Your task to perform on an android device: Open Google Chrome and open the bookmarks view Image 0: 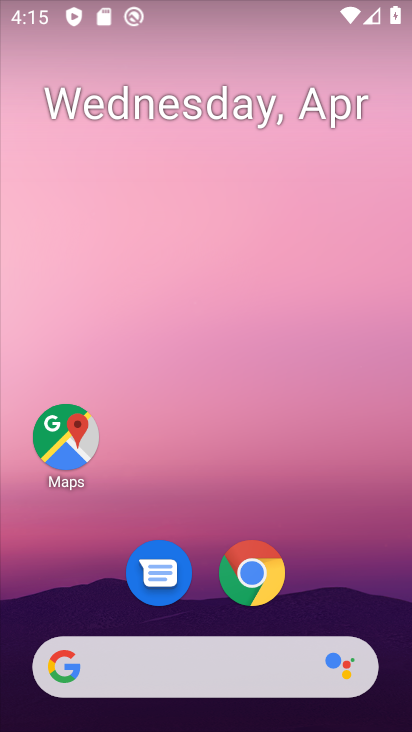
Step 0: click (320, 410)
Your task to perform on an android device: Open Google Chrome and open the bookmarks view Image 1: 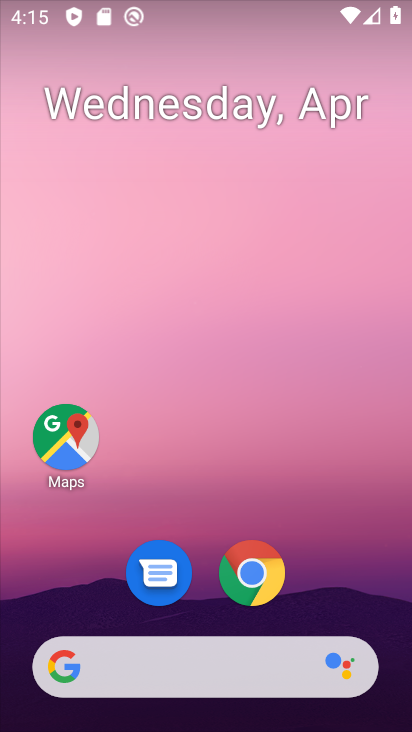
Step 1: click (249, 585)
Your task to perform on an android device: Open Google Chrome and open the bookmarks view Image 2: 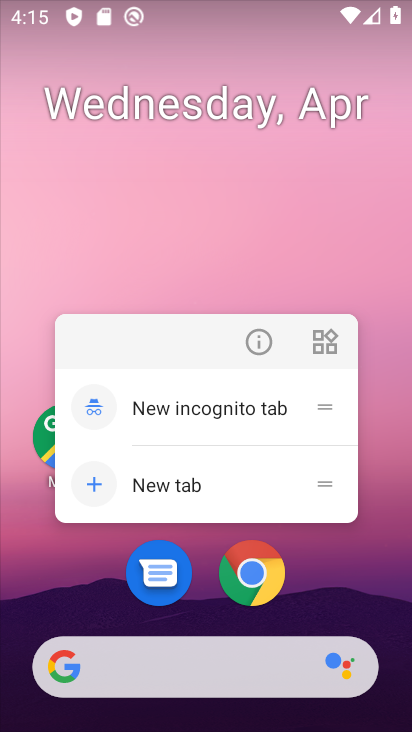
Step 2: click (248, 582)
Your task to perform on an android device: Open Google Chrome and open the bookmarks view Image 3: 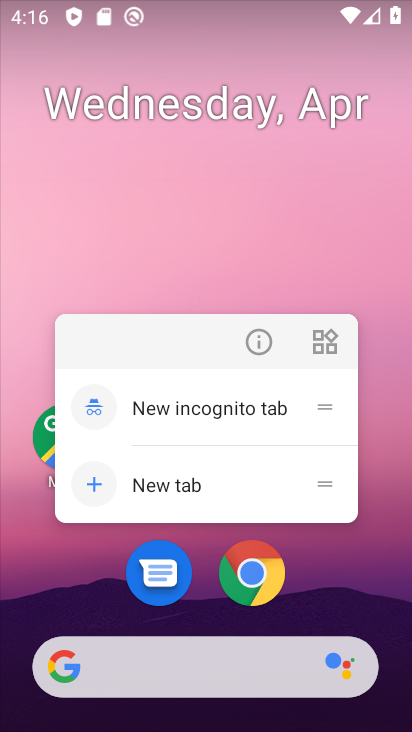
Step 3: click (262, 579)
Your task to perform on an android device: Open Google Chrome and open the bookmarks view Image 4: 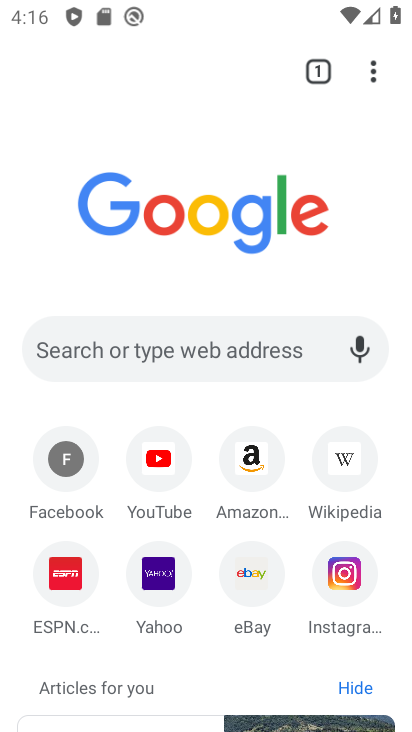
Step 4: drag from (371, 77) to (243, 272)
Your task to perform on an android device: Open Google Chrome and open the bookmarks view Image 5: 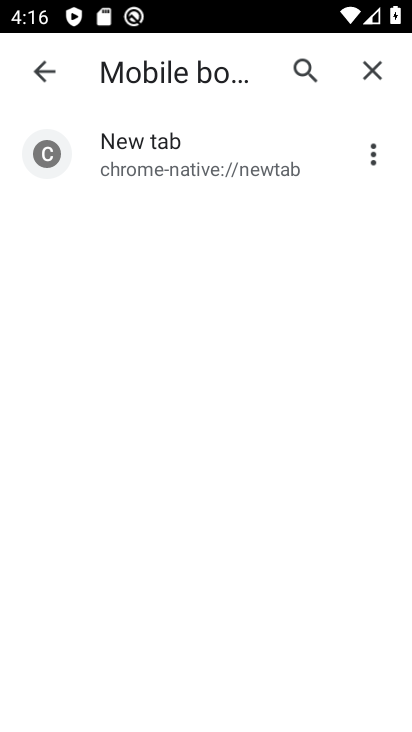
Step 5: click (232, 167)
Your task to perform on an android device: Open Google Chrome and open the bookmarks view Image 6: 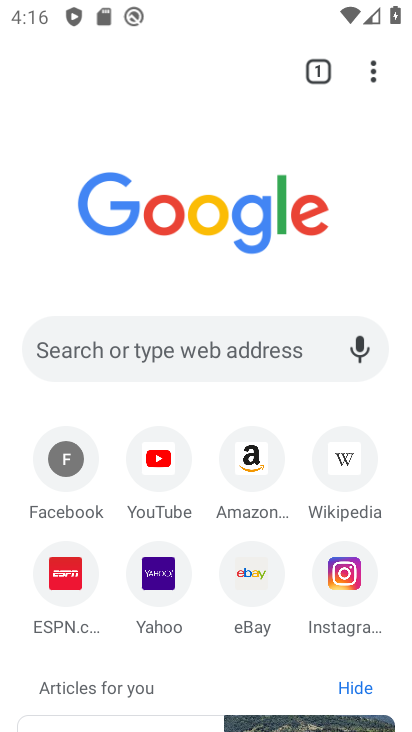
Step 6: task complete